Your task to perform on an android device: Go to Amazon Image 0: 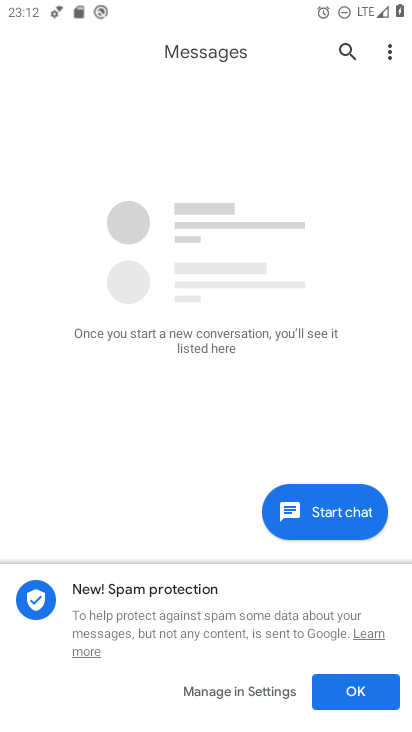
Step 0: press home button
Your task to perform on an android device: Go to Amazon Image 1: 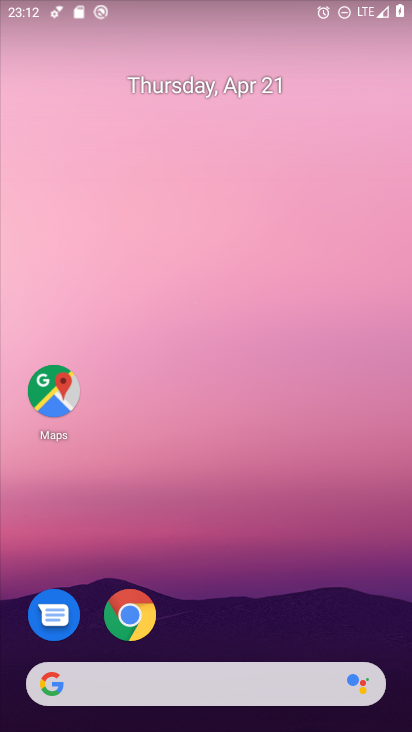
Step 1: drag from (230, 630) to (224, 27)
Your task to perform on an android device: Go to Amazon Image 2: 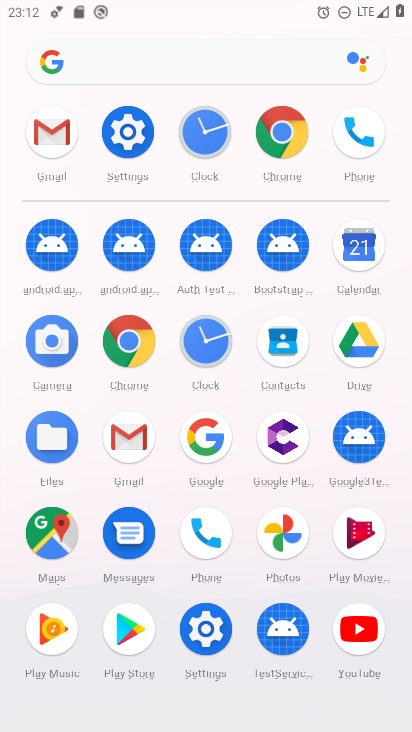
Step 2: click (123, 337)
Your task to perform on an android device: Go to Amazon Image 3: 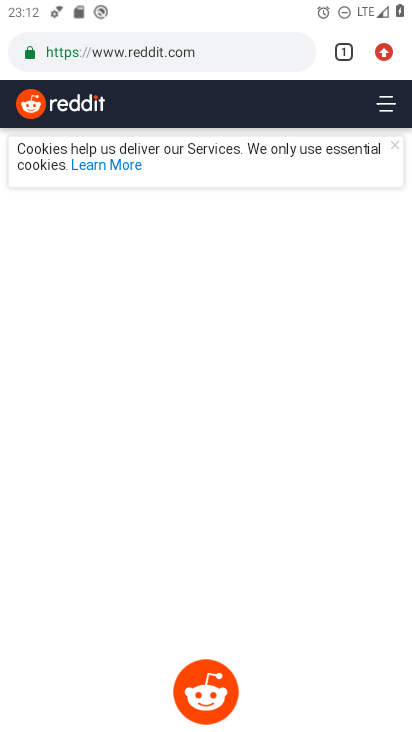
Step 3: click (344, 49)
Your task to perform on an android device: Go to Amazon Image 4: 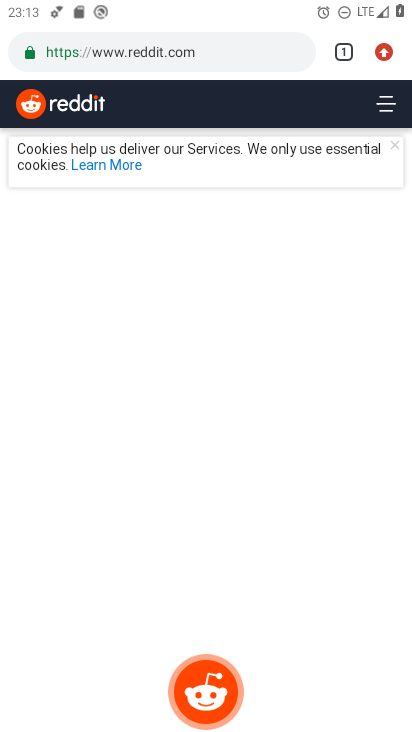
Step 4: click (339, 50)
Your task to perform on an android device: Go to Amazon Image 5: 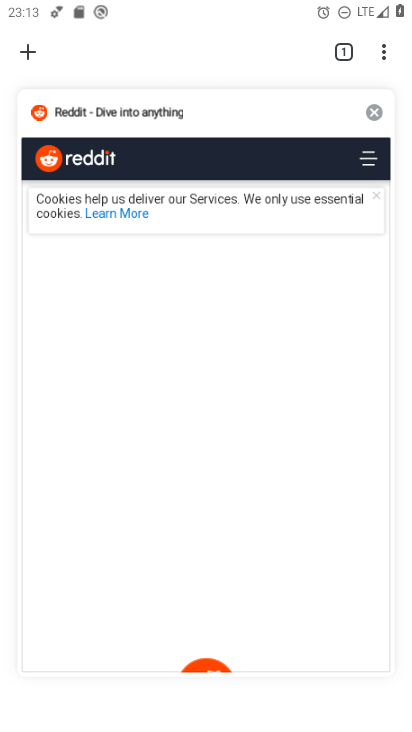
Step 5: click (24, 53)
Your task to perform on an android device: Go to Amazon Image 6: 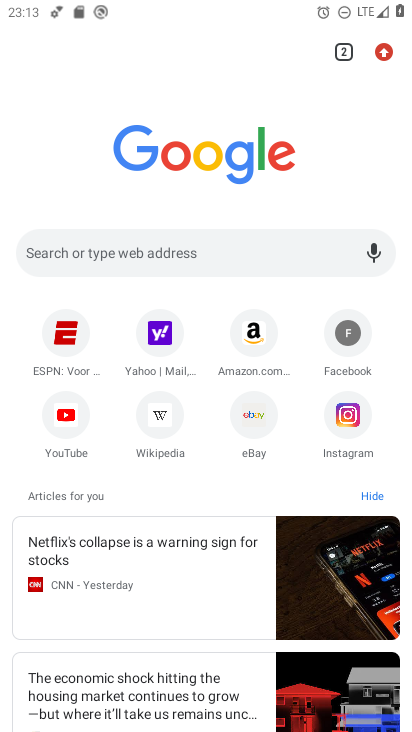
Step 6: click (251, 323)
Your task to perform on an android device: Go to Amazon Image 7: 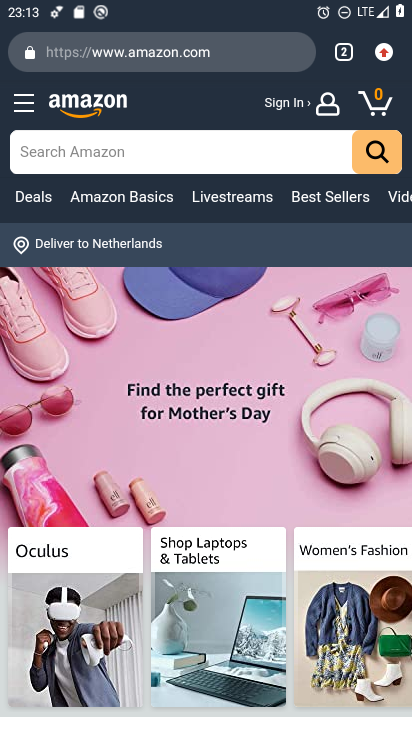
Step 7: task complete